Your task to perform on an android device: turn off location history Image 0: 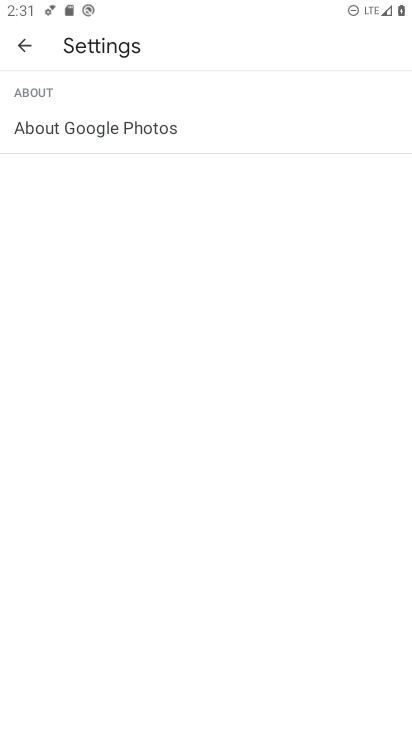
Step 0: press home button
Your task to perform on an android device: turn off location history Image 1: 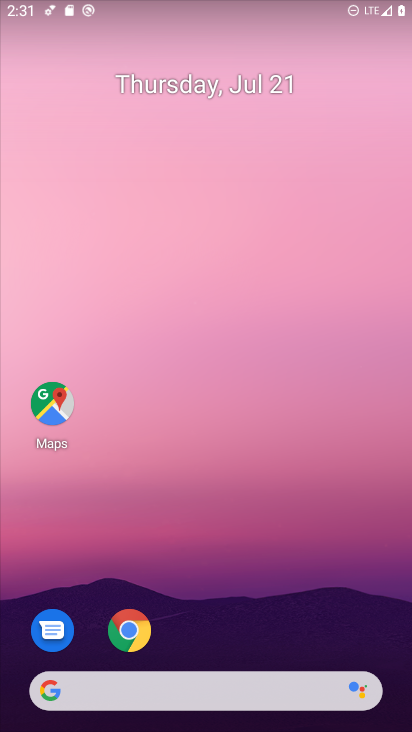
Step 1: drag from (360, 643) to (227, 190)
Your task to perform on an android device: turn off location history Image 2: 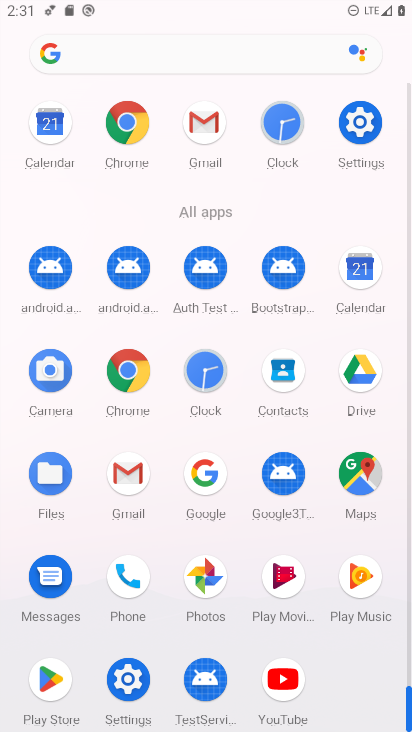
Step 2: click (135, 687)
Your task to perform on an android device: turn off location history Image 3: 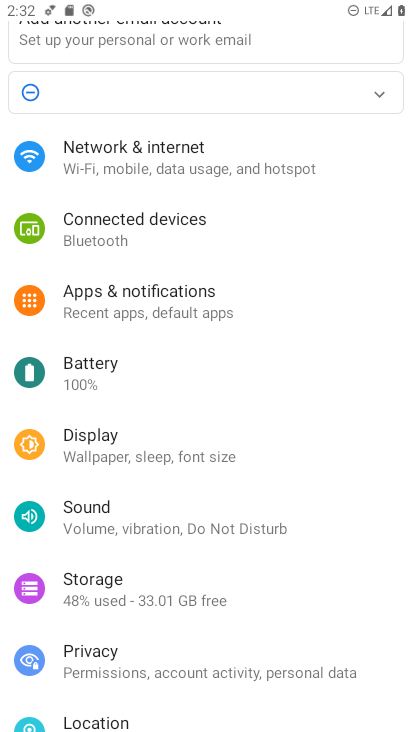
Step 3: click (131, 719)
Your task to perform on an android device: turn off location history Image 4: 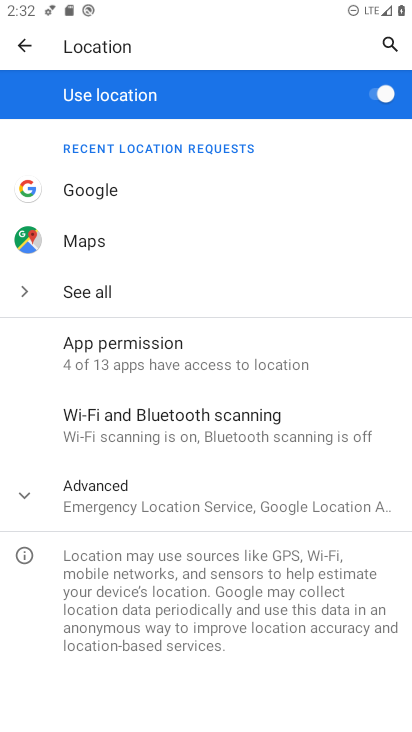
Step 4: click (147, 487)
Your task to perform on an android device: turn off location history Image 5: 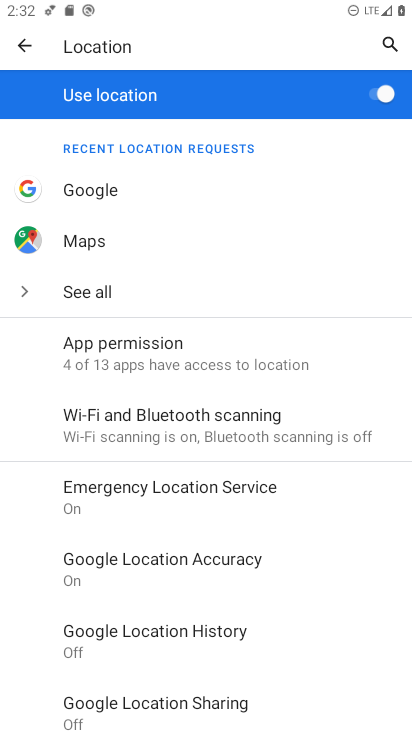
Step 5: click (215, 631)
Your task to perform on an android device: turn off location history Image 6: 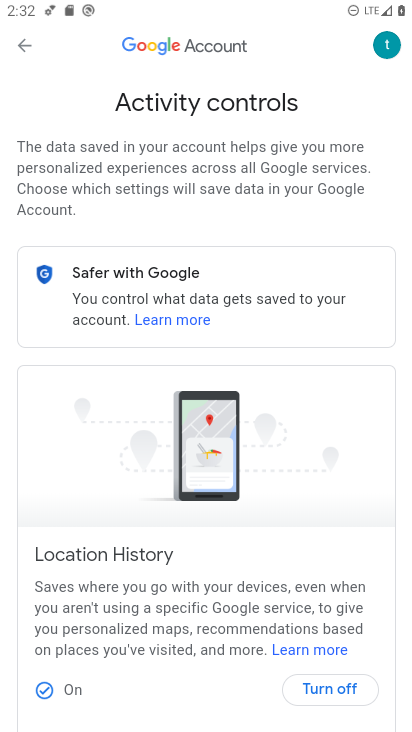
Step 6: click (314, 685)
Your task to perform on an android device: turn off location history Image 7: 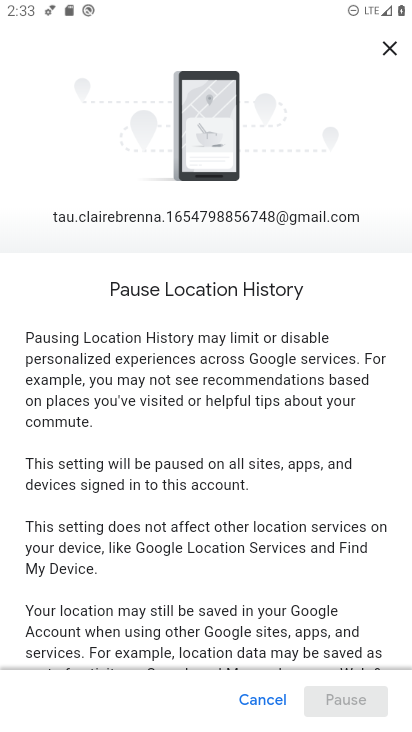
Step 7: drag from (311, 640) to (245, 465)
Your task to perform on an android device: turn off location history Image 8: 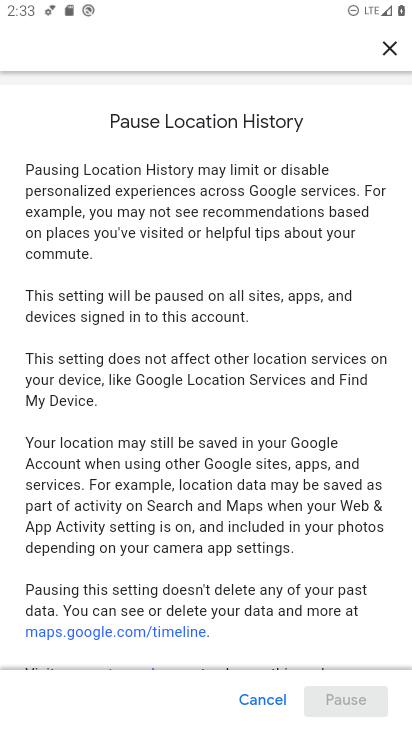
Step 8: drag from (299, 576) to (254, 302)
Your task to perform on an android device: turn off location history Image 9: 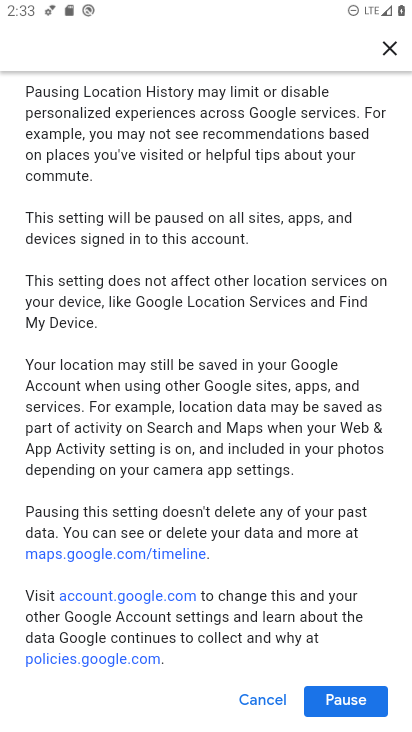
Step 9: click (364, 691)
Your task to perform on an android device: turn off location history Image 10: 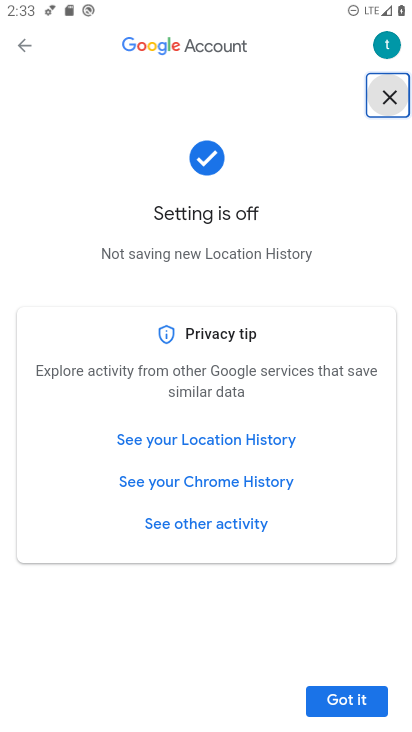
Step 10: click (368, 699)
Your task to perform on an android device: turn off location history Image 11: 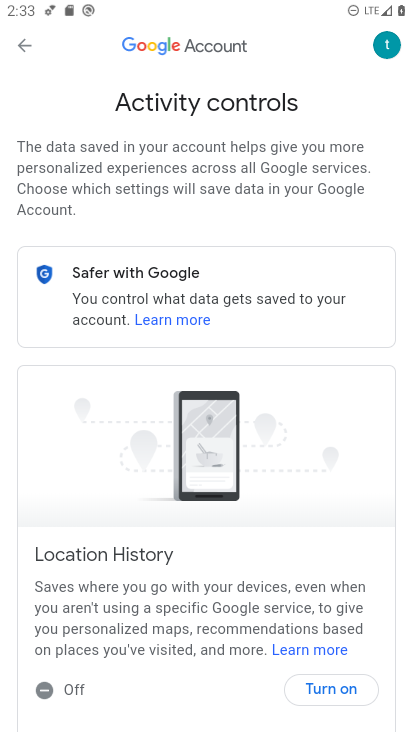
Step 11: task complete